Your task to perform on an android device: turn off notifications in google photos Image 0: 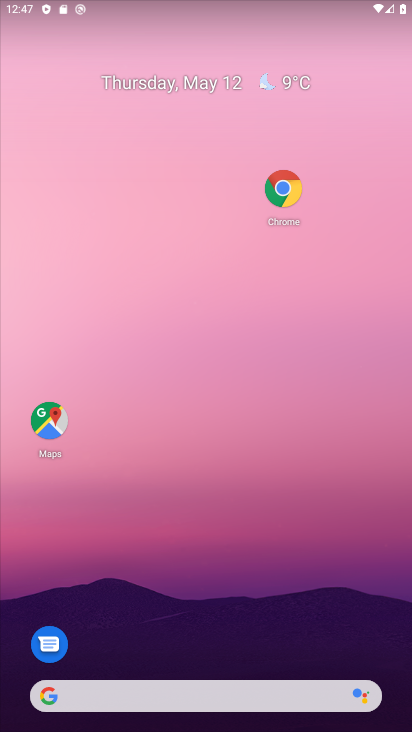
Step 0: drag from (175, 661) to (267, 186)
Your task to perform on an android device: turn off notifications in google photos Image 1: 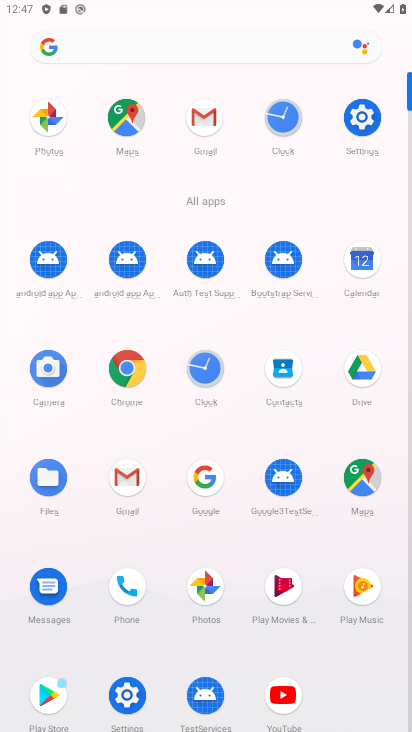
Step 1: click (200, 590)
Your task to perform on an android device: turn off notifications in google photos Image 2: 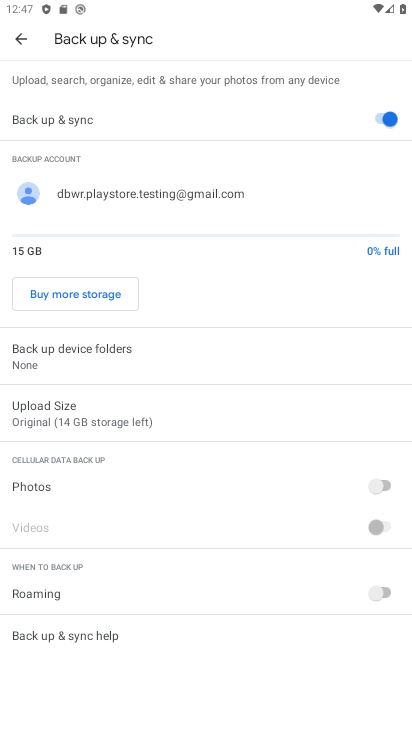
Step 2: click (31, 45)
Your task to perform on an android device: turn off notifications in google photos Image 3: 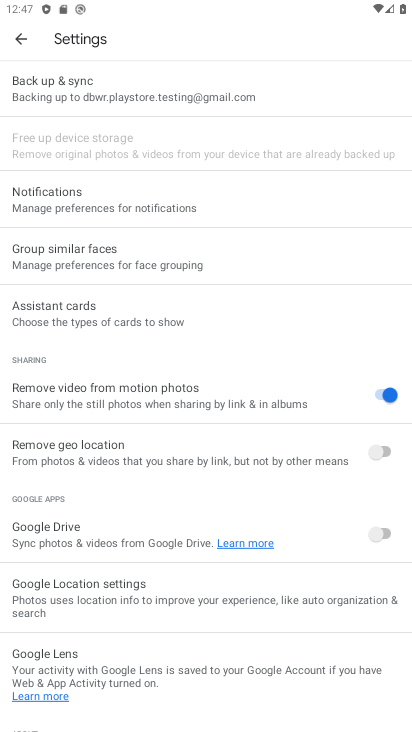
Step 3: click (144, 216)
Your task to perform on an android device: turn off notifications in google photos Image 4: 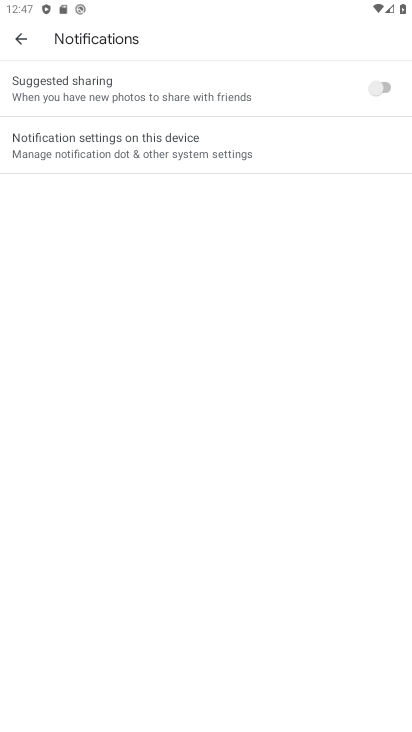
Step 4: click (164, 151)
Your task to perform on an android device: turn off notifications in google photos Image 5: 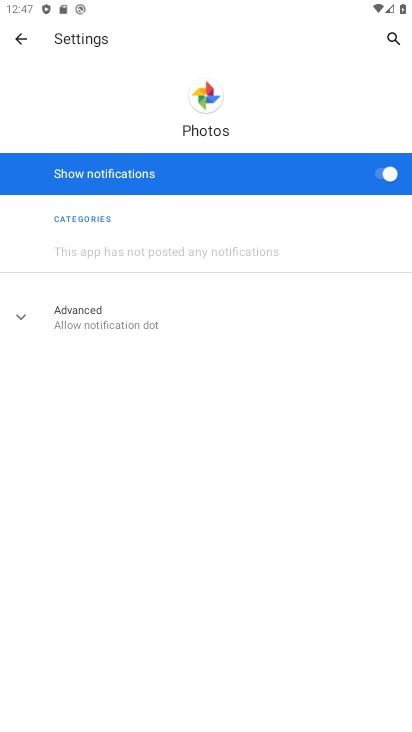
Step 5: click (376, 176)
Your task to perform on an android device: turn off notifications in google photos Image 6: 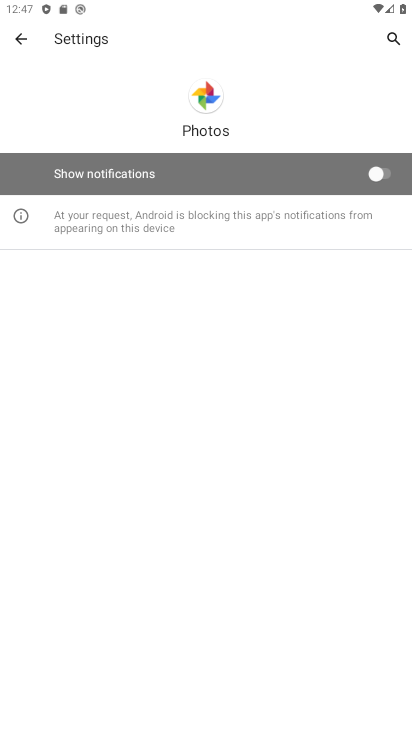
Step 6: task complete